Your task to perform on an android device: Go to privacy settings Image 0: 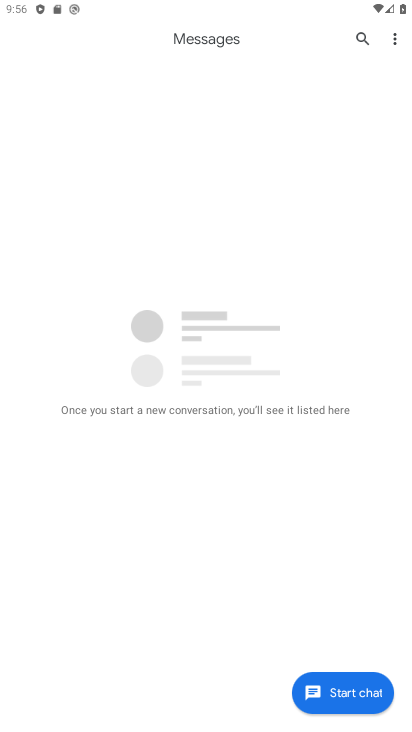
Step 0: press home button
Your task to perform on an android device: Go to privacy settings Image 1: 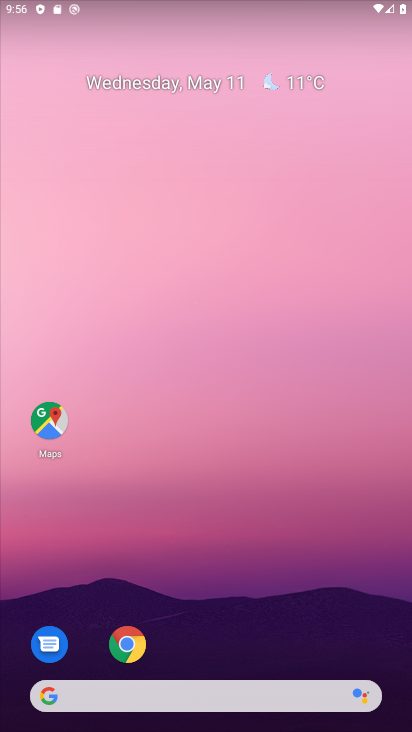
Step 1: drag from (367, 638) to (308, 0)
Your task to perform on an android device: Go to privacy settings Image 2: 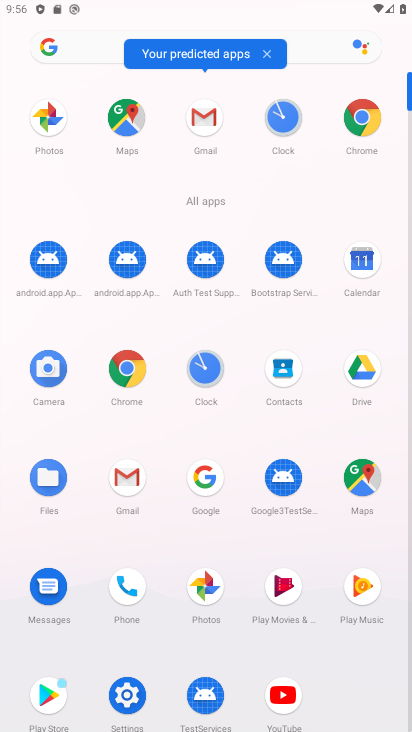
Step 2: click (129, 689)
Your task to perform on an android device: Go to privacy settings Image 3: 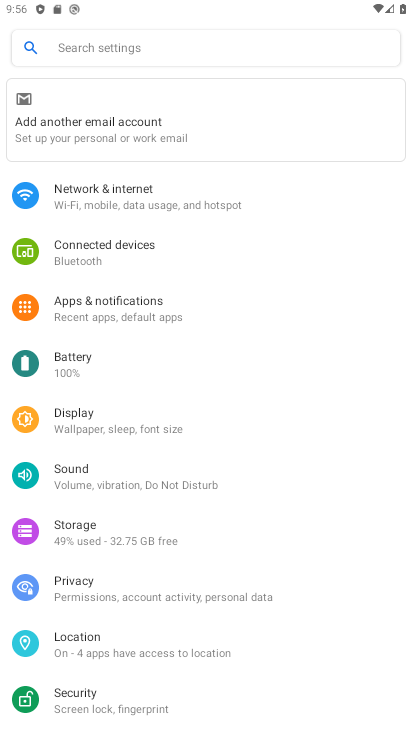
Step 3: click (91, 591)
Your task to perform on an android device: Go to privacy settings Image 4: 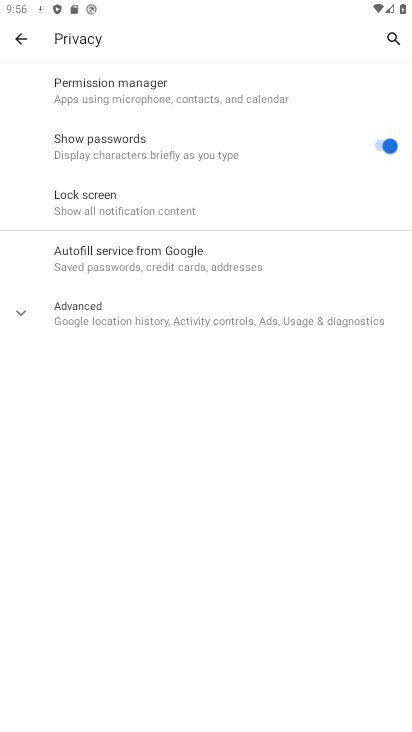
Step 4: task complete